Your task to perform on an android device: What is the recent news? Image 0: 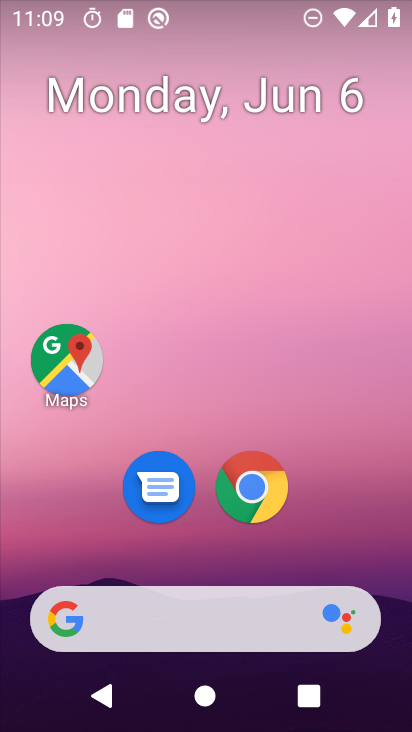
Step 0: drag from (394, 635) to (278, 52)
Your task to perform on an android device: What is the recent news? Image 1: 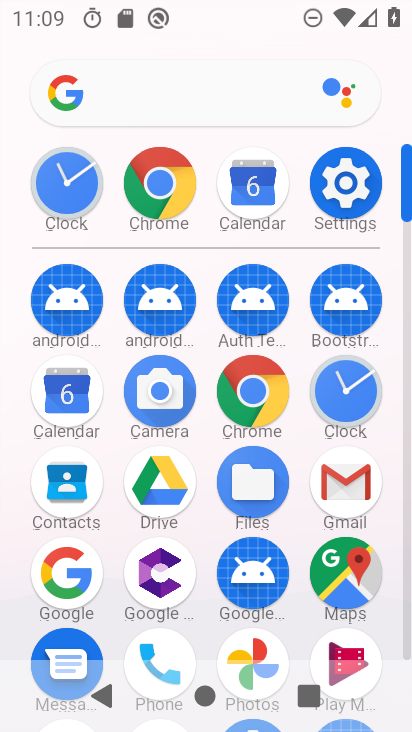
Step 1: click (64, 568)
Your task to perform on an android device: What is the recent news? Image 2: 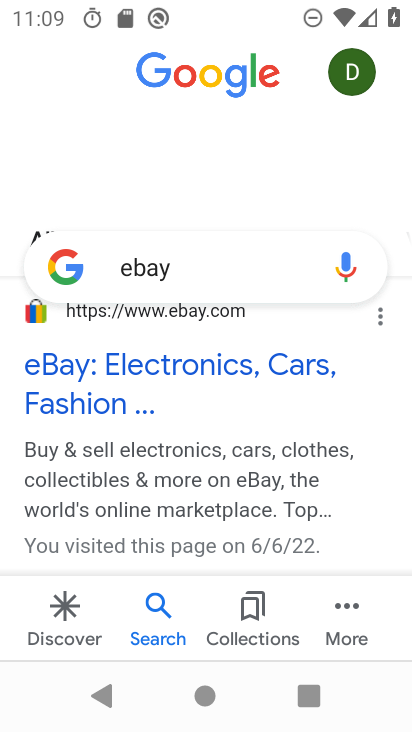
Step 2: press back button
Your task to perform on an android device: What is the recent news? Image 3: 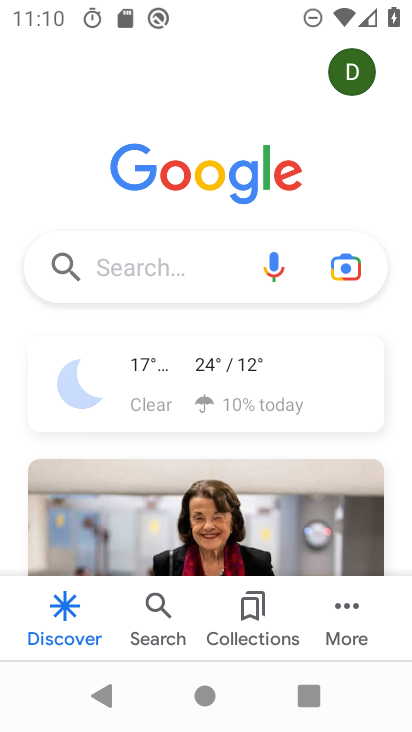
Step 3: click (132, 271)
Your task to perform on an android device: What is the recent news? Image 4: 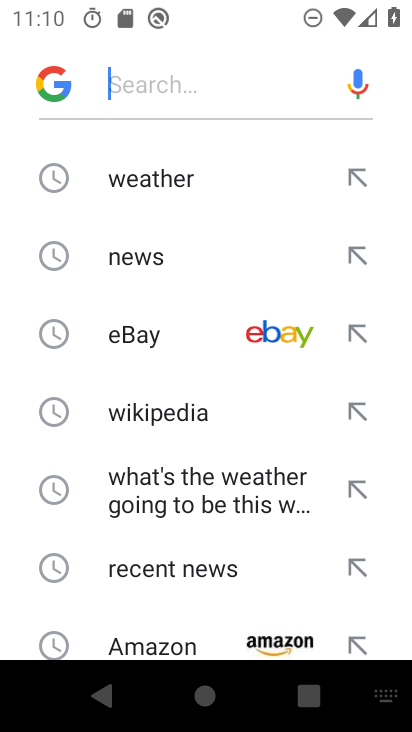
Step 4: drag from (156, 593) to (192, 298)
Your task to perform on an android device: What is the recent news? Image 5: 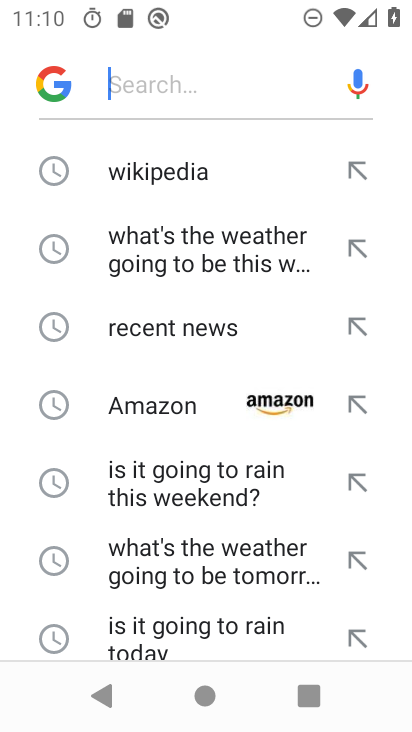
Step 5: click (158, 341)
Your task to perform on an android device: What is the recent news? Image 6: 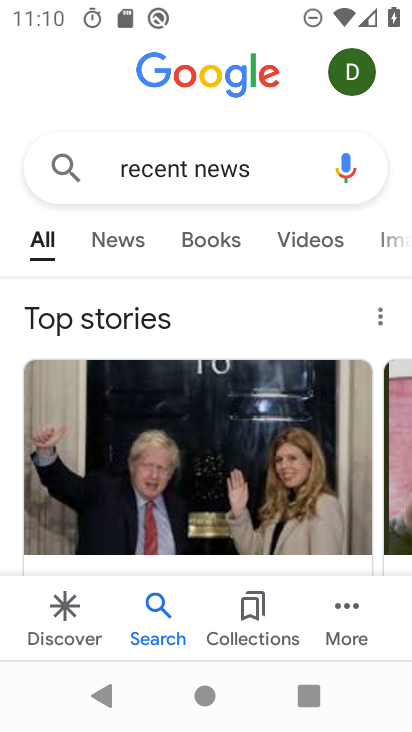
Step 6: task complete